Your task to perform on an android device: Is it going to rain tomorrow? Image 0: 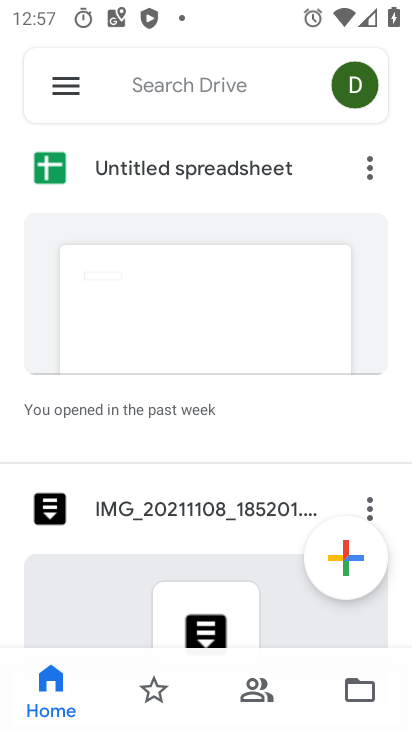
Step 0: press home button
Your task to perform on an android device: Is it going to rain tomorrow? Image 1: 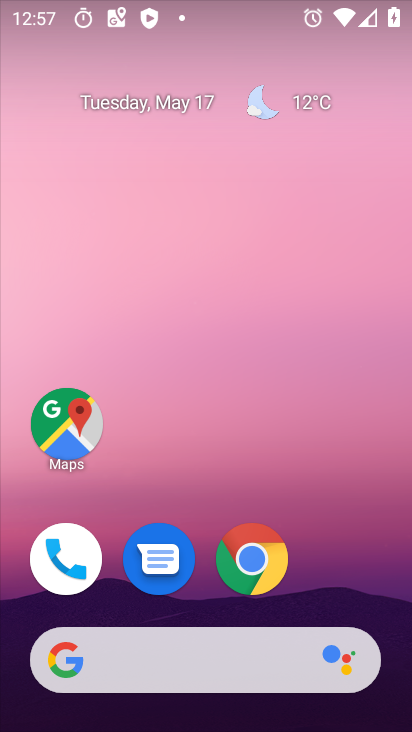
Step 1: click (347, 509)
Your task to perform on an android device: Is it going to rain tomorrow? Image 2: 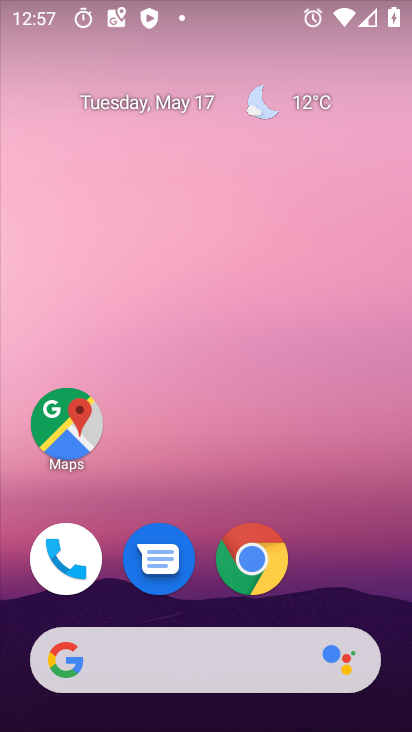
Step 2: click (313, 93)
Your task to perform on an android device: Is it going to rain tomorrow? Image 3: 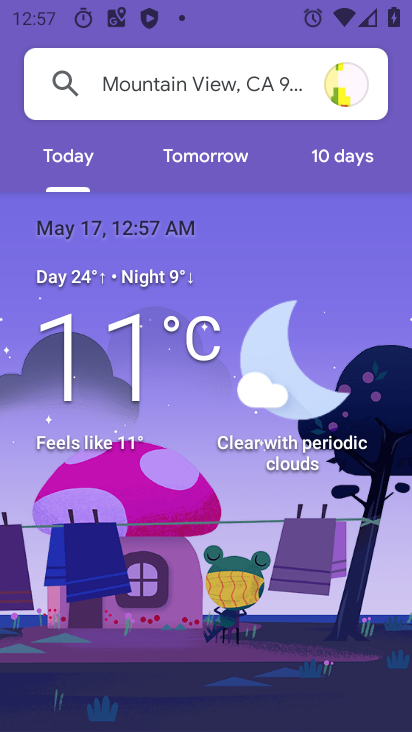
Step 3: click (231, 167)
Your task to perform on an android device: Is it going to rain tomorrow? Image 4: 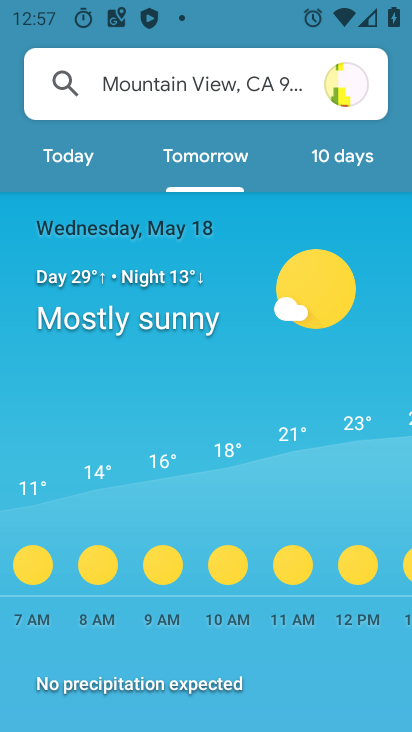
Step 4: task complete